Your task to perform on an android device: change keyboard looks Image 0: 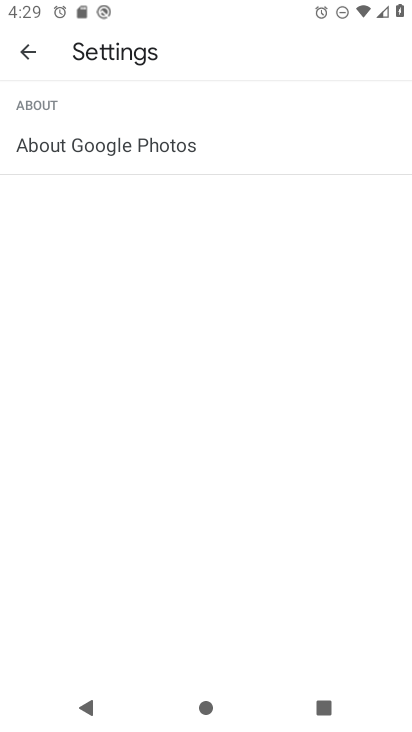
Step 0: press home button
Your task to perform on an android device: change keyboard looks Image 1: 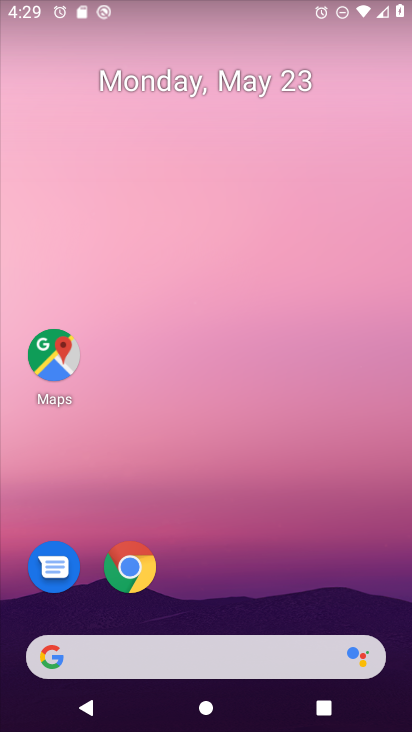
Step 1: drag from (386, 613) to (330, 59)
Your task to perform on an android device: change keyboard looks Image 2: 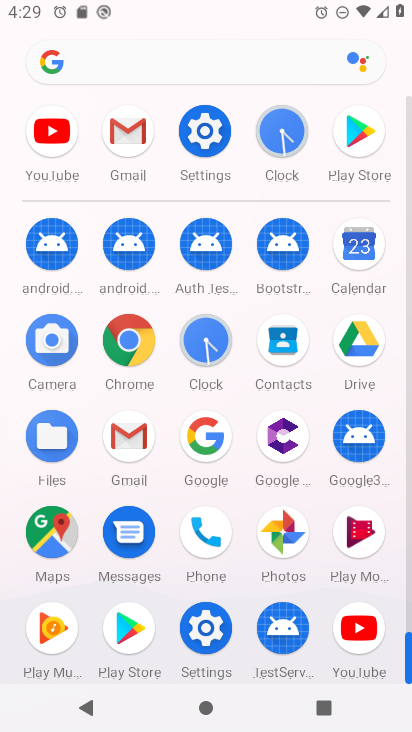
Step 2: click (207, 626)
Your task to perform on an android device: change keyboard looks Image 3: 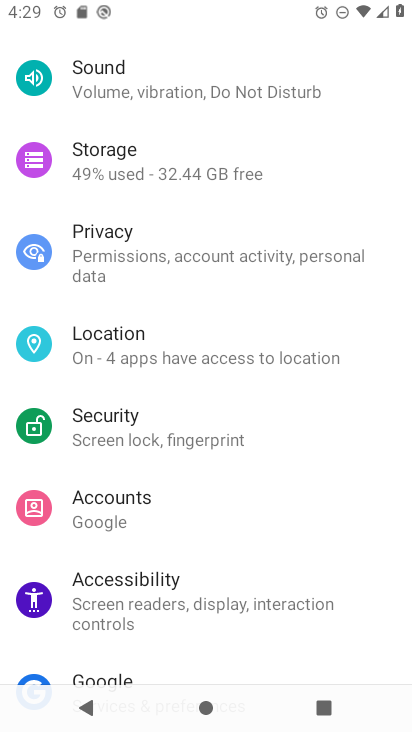
Step 3: drag from (284, 651) to (342, 83)
Your task to perform on an android device: change keyboard looks Image 4: 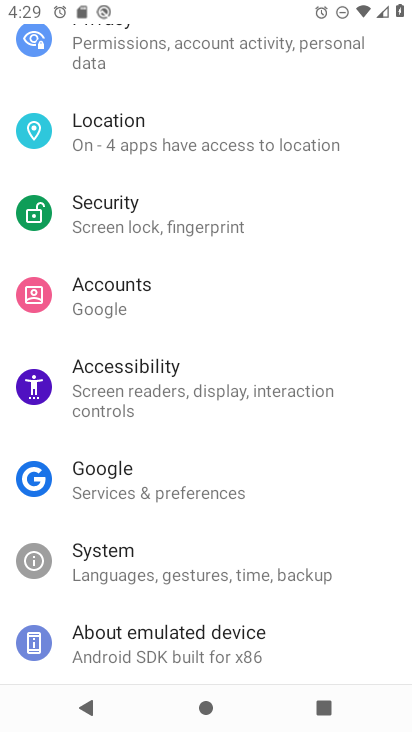
Step 4: click (109, 545)
Your task to perform on an android device: change keyboard looks Image 5: 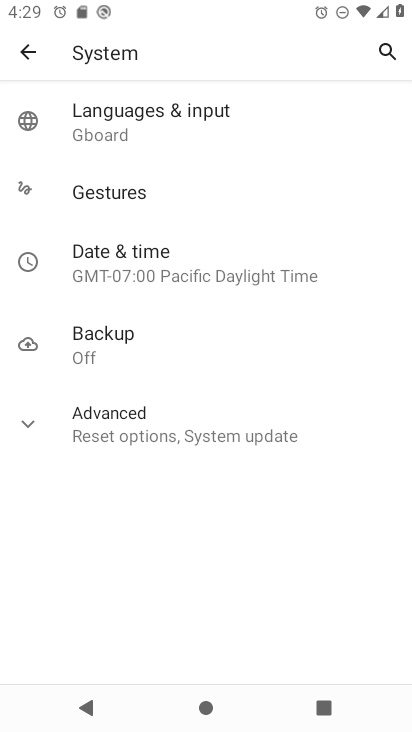
Step 5: click (97, 113)
Your task to perform on an android device: change keyboard looks Image 6: 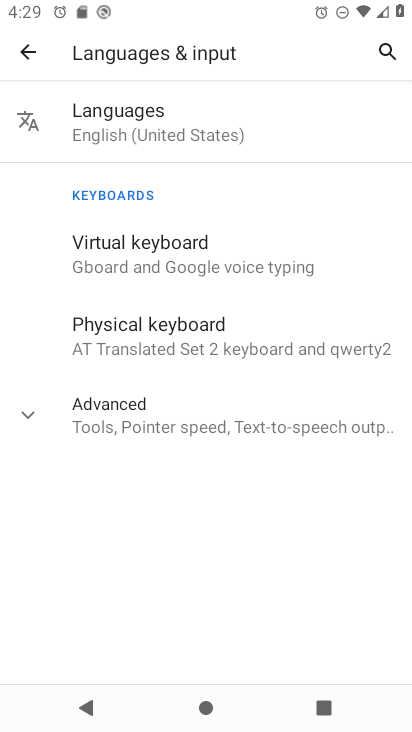
Step 6: click (123, 331)
Your task to perform on an android device: change keyboard looks Image 7: 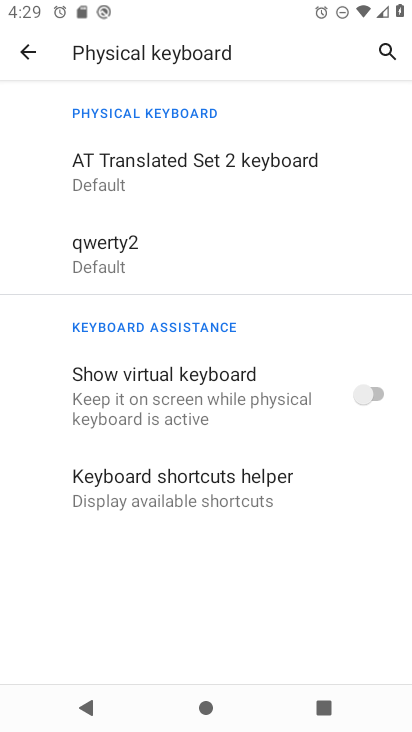
Step 7: click (109, 228)
Your task to perform on an android device: change keyboard looks Image 8: 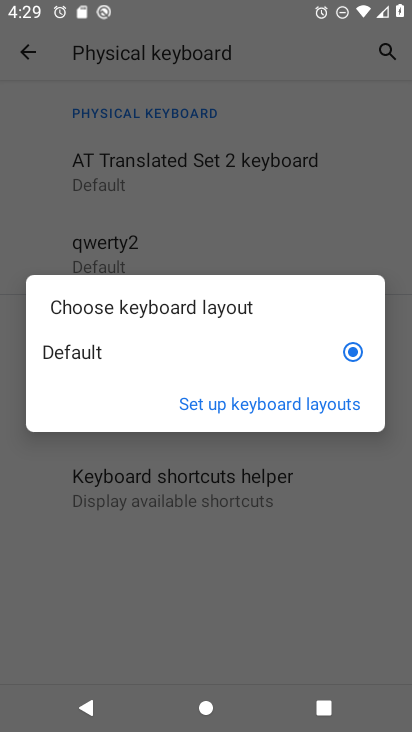
Step 8: click (256, 401)
Your task to perform on an android device: change keyboard looks Image 9: 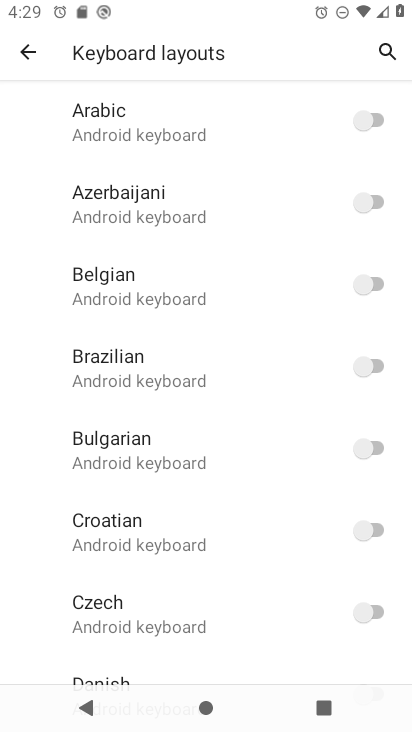
Step 9: drag from (278, 564) to (236, 113)
Your task to perform on an android device: change keyboard looks Image 10: 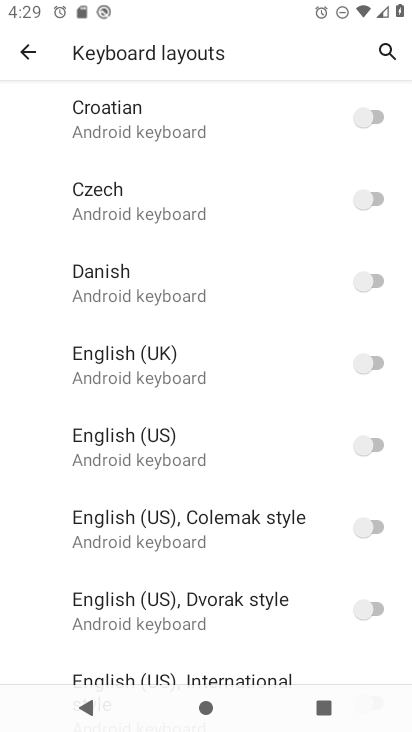
Step 10: click (367, 436)
Your task to perform on an android device: change keyboard looks Image 11: 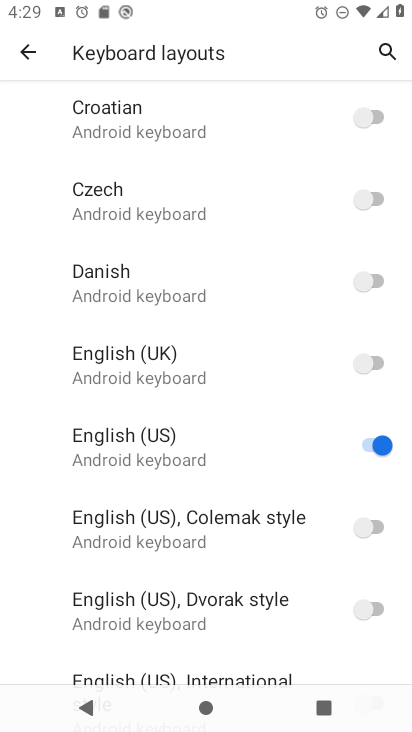
Step 11: task complete